Your task to perform on an android device: Open Maps and search for coffee Image 0: 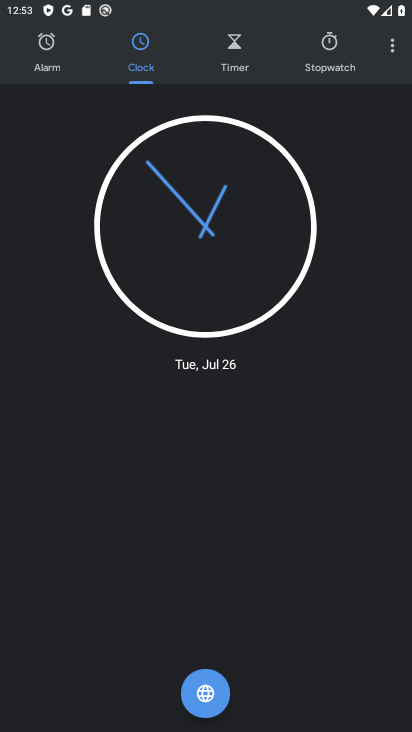
Step 0: press home button
Your task to perform on an android device: Open Maps and search for coffee Image 1: 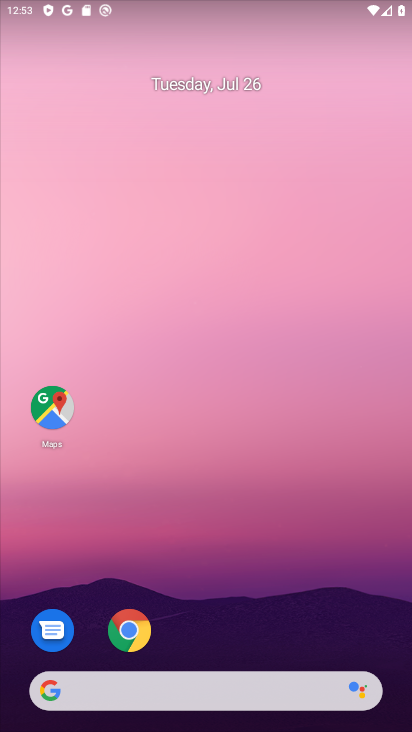
Step 1: drag from (189, 634) to (160, 331)
Your task to perform on an android device: Open Maps and search for coffee Image 2: 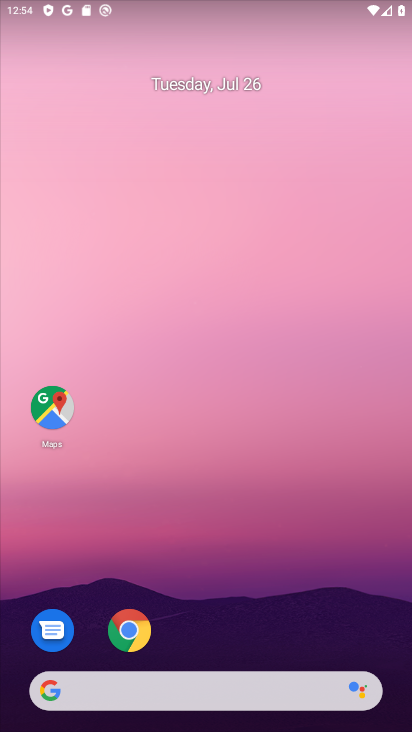
Step 2: click (41, 410)
Your task to perform on an android device: Open Maps and search for coffee Image 3: 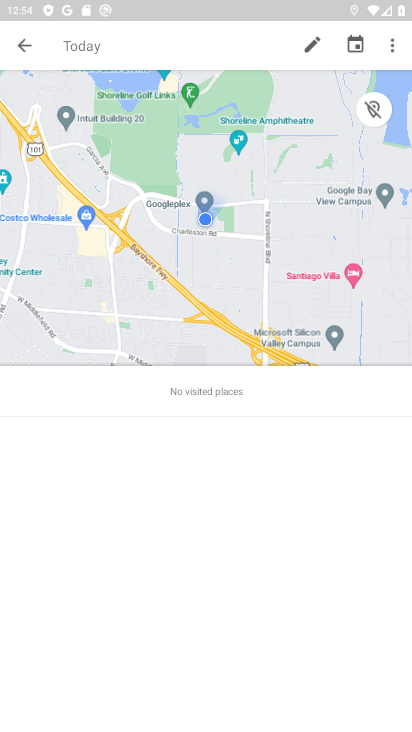
Step 3: click (24, 44)
Your task to perform on an android device: Open Maps and search for coffee Image 4: 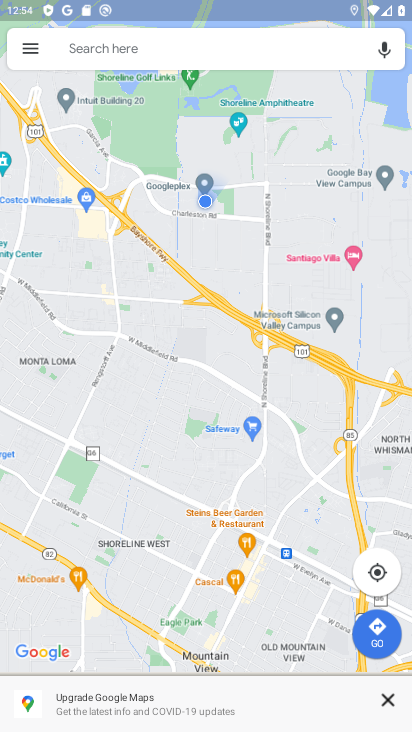
Step 4: click (102, 43)
Your task to perform on an android device: Open Maps and search for coffee Image 5: 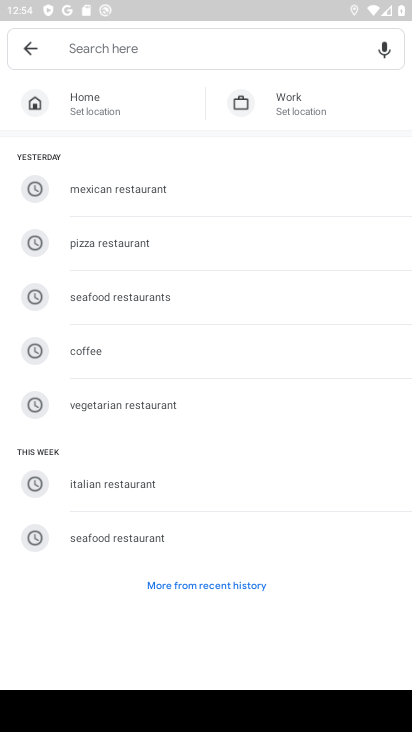
Step 5: click (95, 347)
Your task to perform on an android device: Open Maps and search for coffee Image 6: 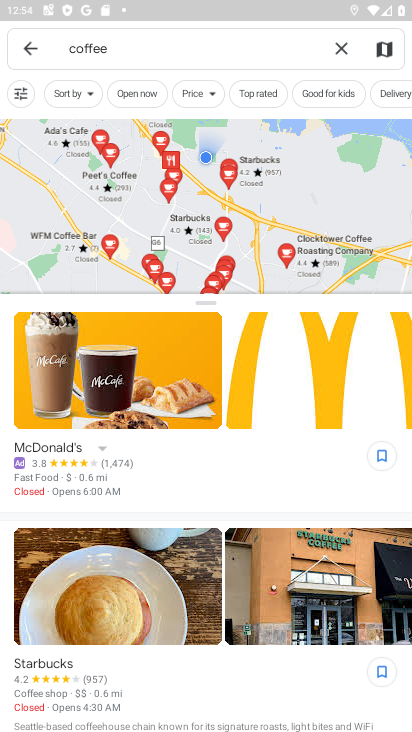
Step 6: task complete